Your task to perform on an android device: Empty the shopping cart on costco.com. Search for "macbook air" on costco.com, select the first entry, add it to the cart, then select checkout. Image 0: 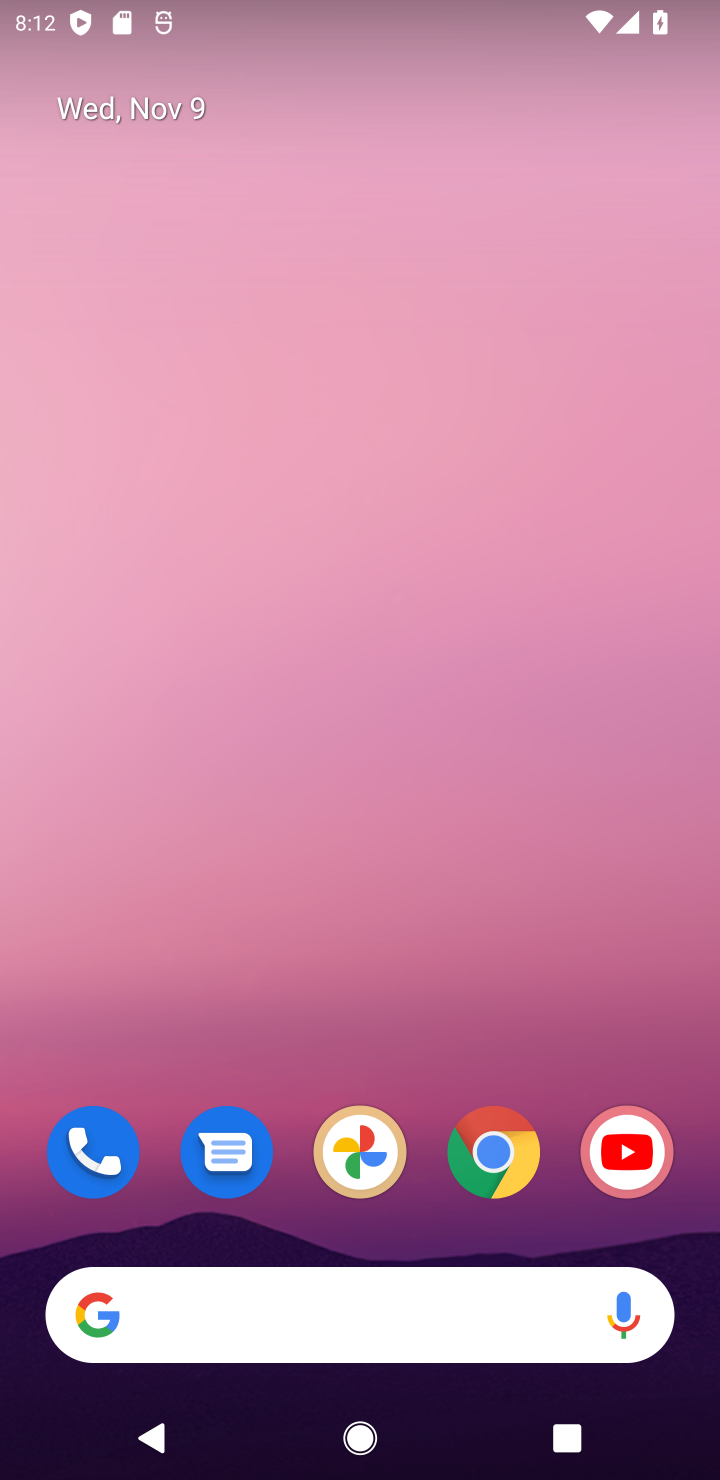
Step 0: click (501, 1137)
Your task to perform on an android device: Empty the shopping cart on costco.com. Search for "macbook air" on costco.com, select the first entry, add it to the cart, then select checkout. Image 1: 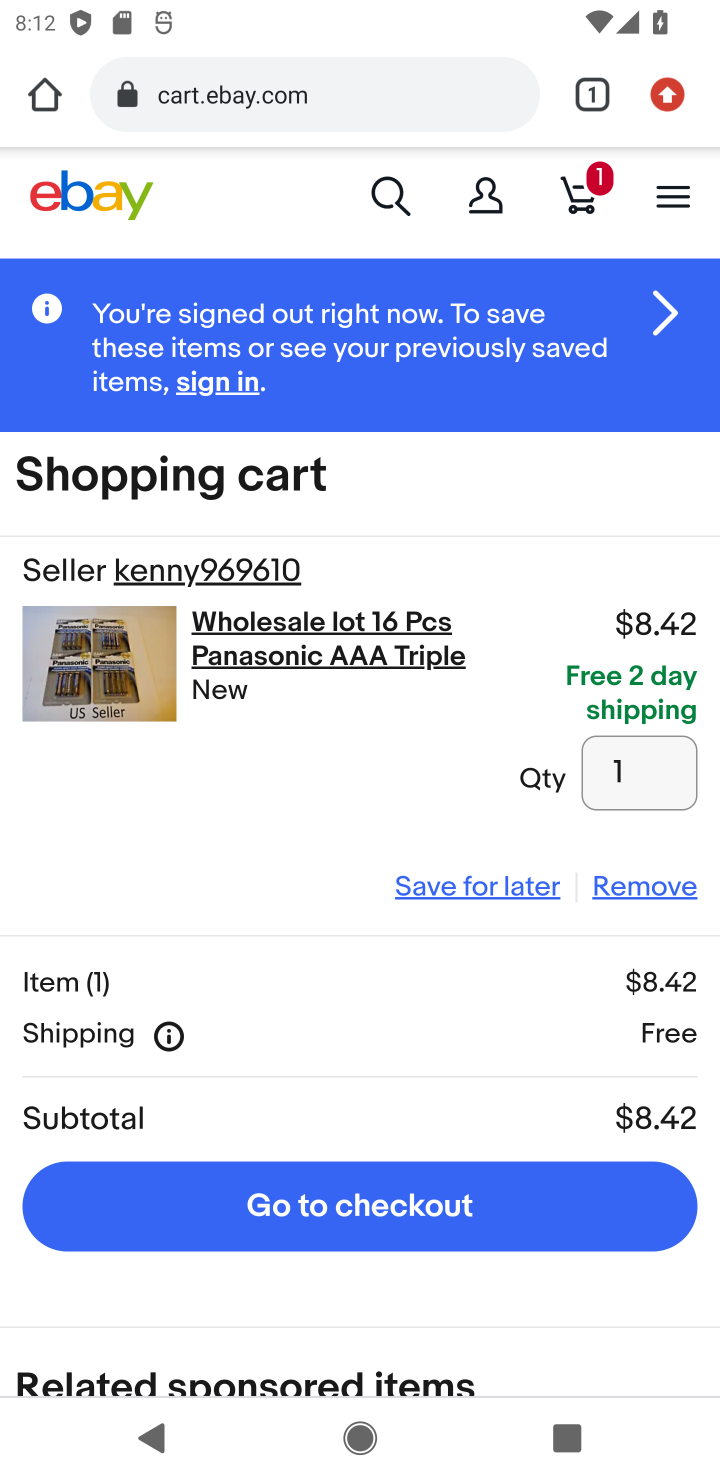
Step 1: click (239, 98)
Your task to perform on an android device: Empty the shopping cart on costco.com. Search for "macbook air" on costco.com, select the first entry, add it to the cart, then select checkout. Image 2: 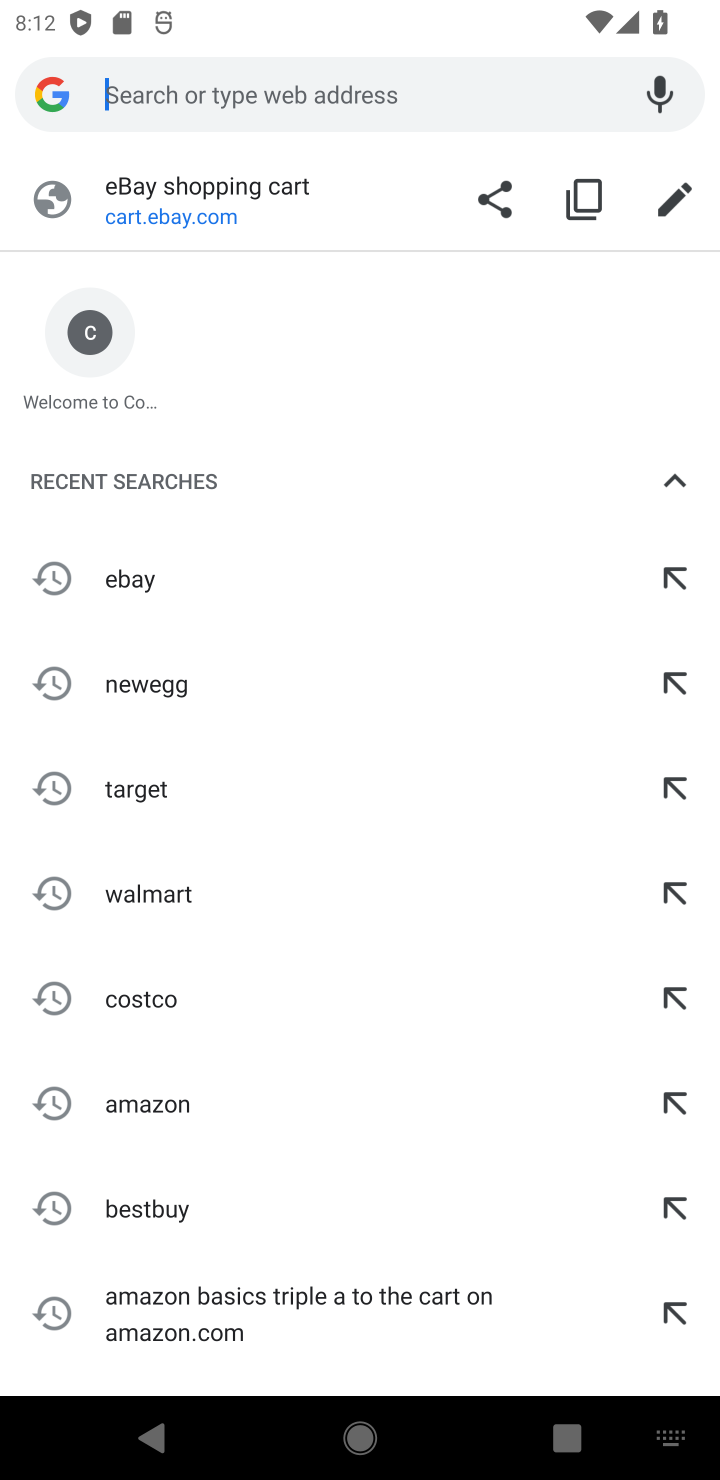
Step 2: click (150, 995)
Your task to perform on an android device: Empty the shopping cart on costco.com. Search for "macbook air" on costco.com, select the first entry, add it to the cart, then select checkout. Image 3: 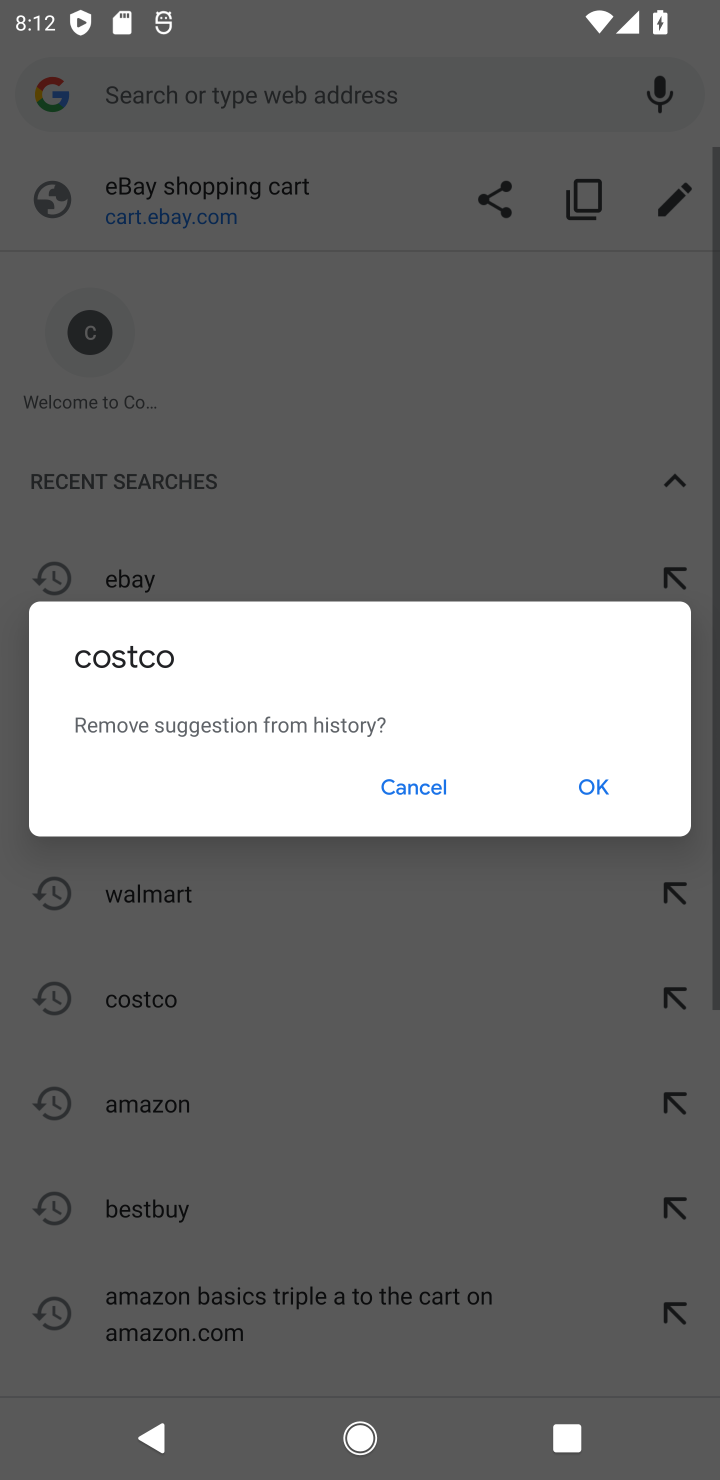
Step 3: click (419, 785)
Your task to perform on an android device: Empty the shopping cart on costco.com. Search for "macbook air" on costco.com, select the first entry, add it to the cart, then select checkout. Image 4: 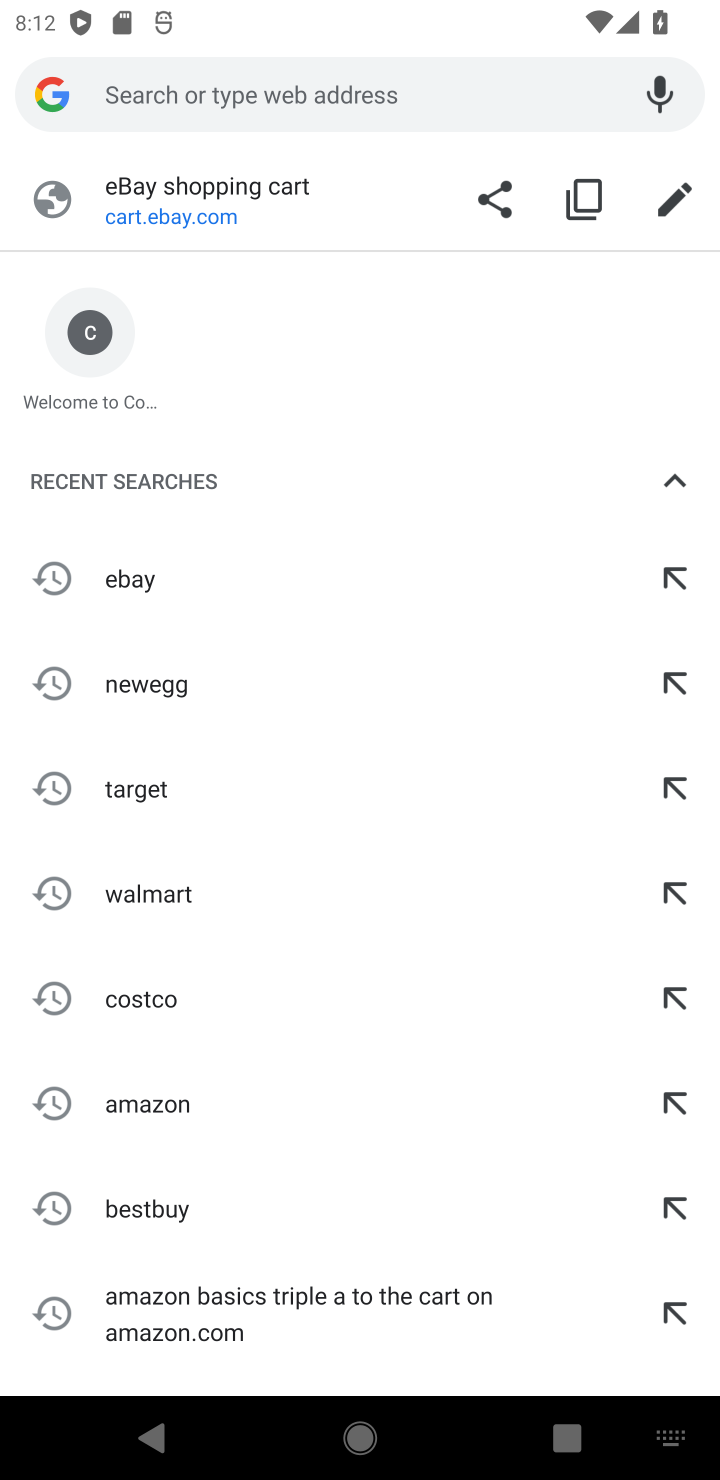
Step 4: click (111, 993)
Your task to perform on an android device: Empty the shopping cart on costco.com. Search for "macbook air" on costco.com, select the first entry, add it to the cart, then select checkout. Image 5: 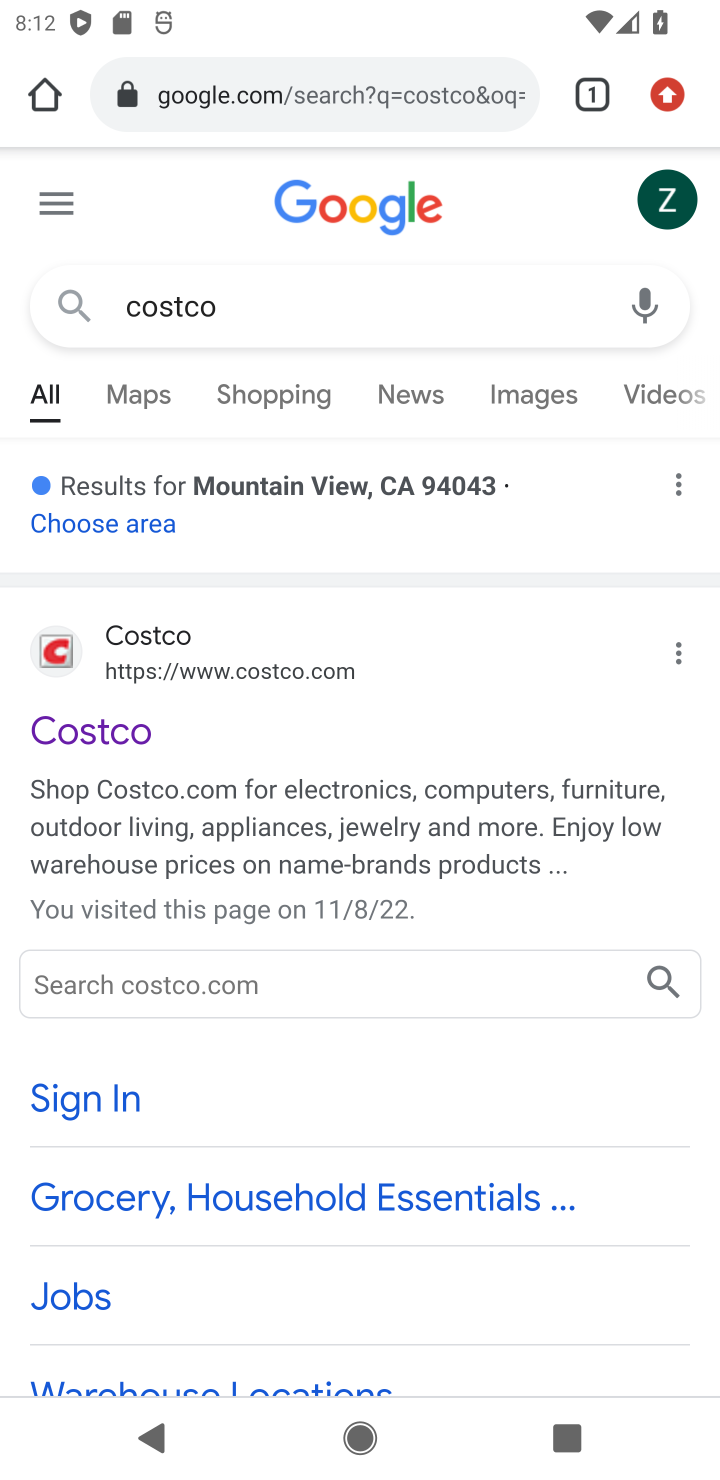
Step 5: click (113, 719)
Your task to perform on an android device: Empty the shopping cart on costco.com. Search for "macbook air" on costco.com, select the first entry, add it to the cart, then select checkout. Image 6: 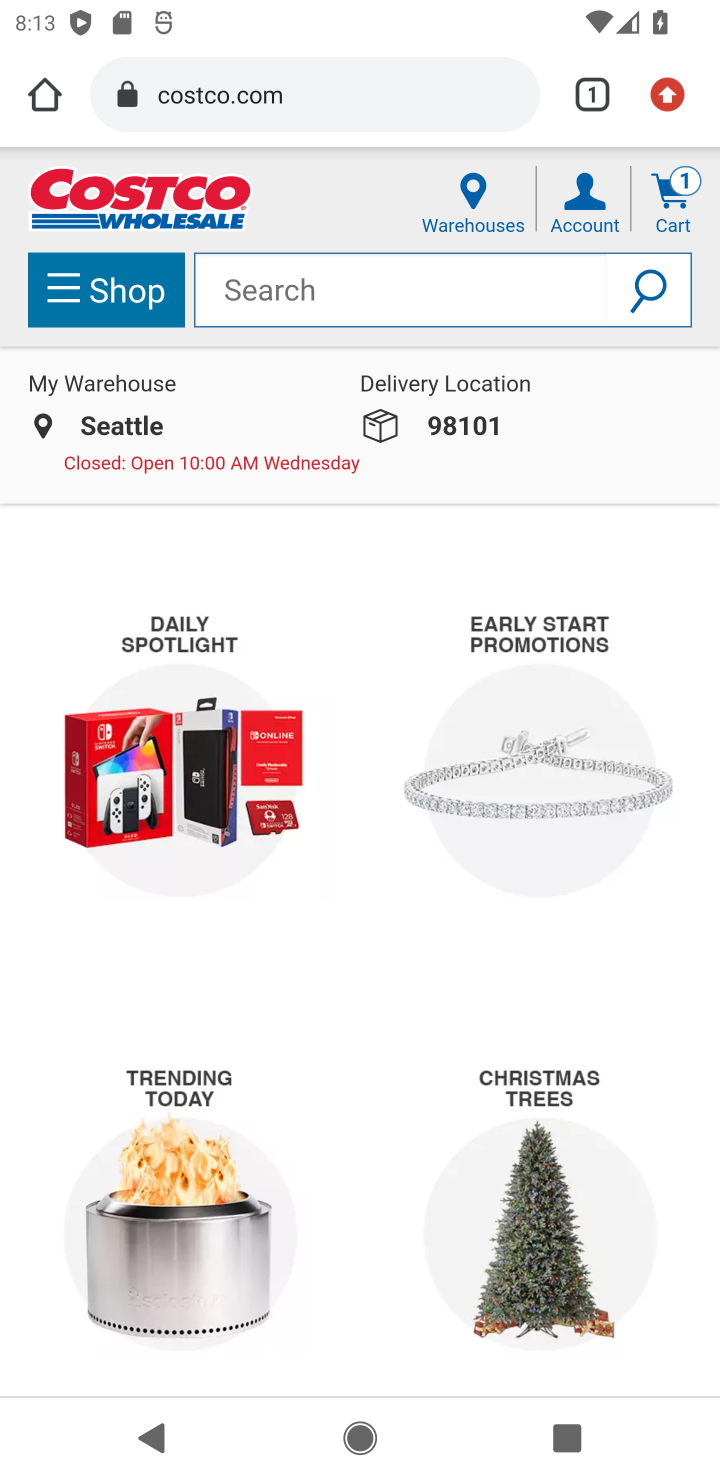
Step 6: click (389, 296)
Your task to perform on an android device: Empty the shopping cart on costco.com. Search for "macbook air" on costco.com, select the first entry, add it to the cart, then select checkout. Image 7: 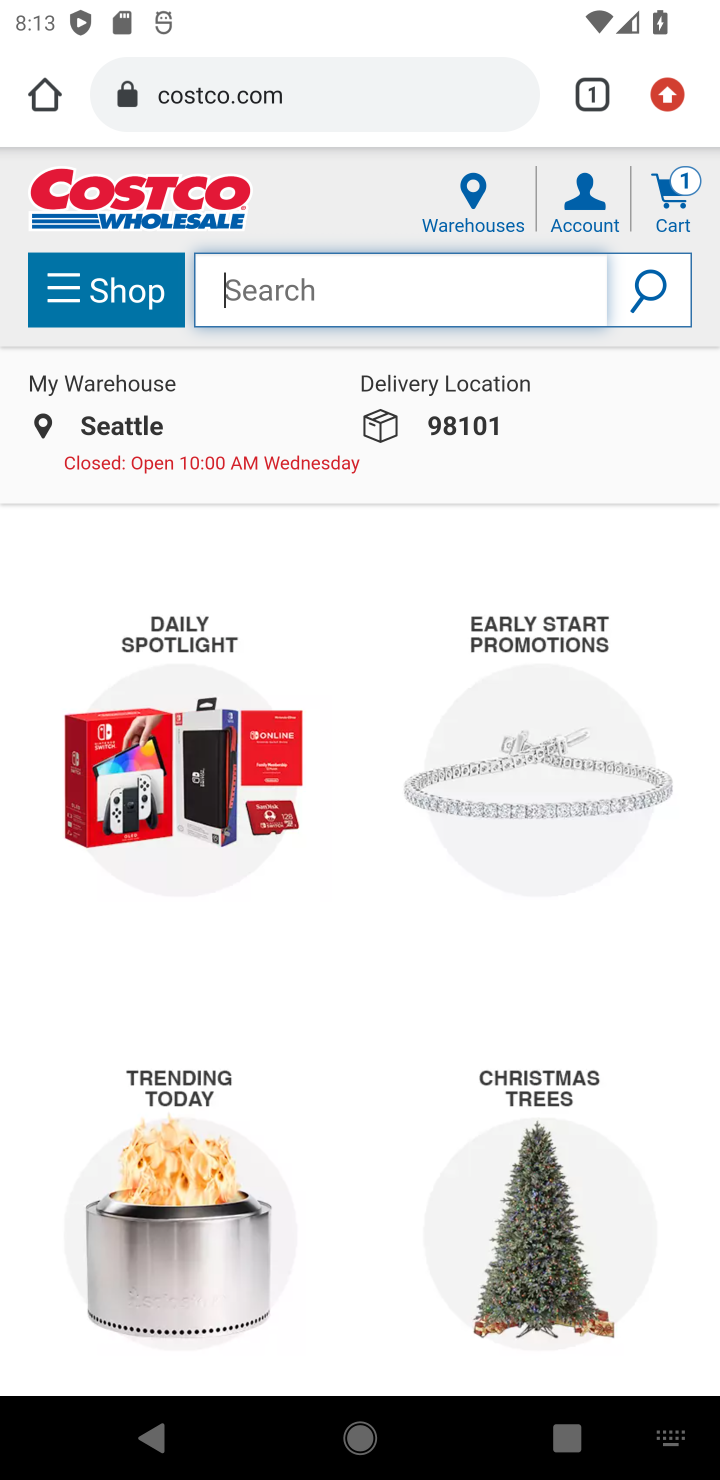
Step 7: type "macbook air"
Your task to perform on an android device: Empty the shopping cart on costco.com. Search for "macbook air" on costco.com, select the first entry, add it to the cart, then select checkout. Image 8: 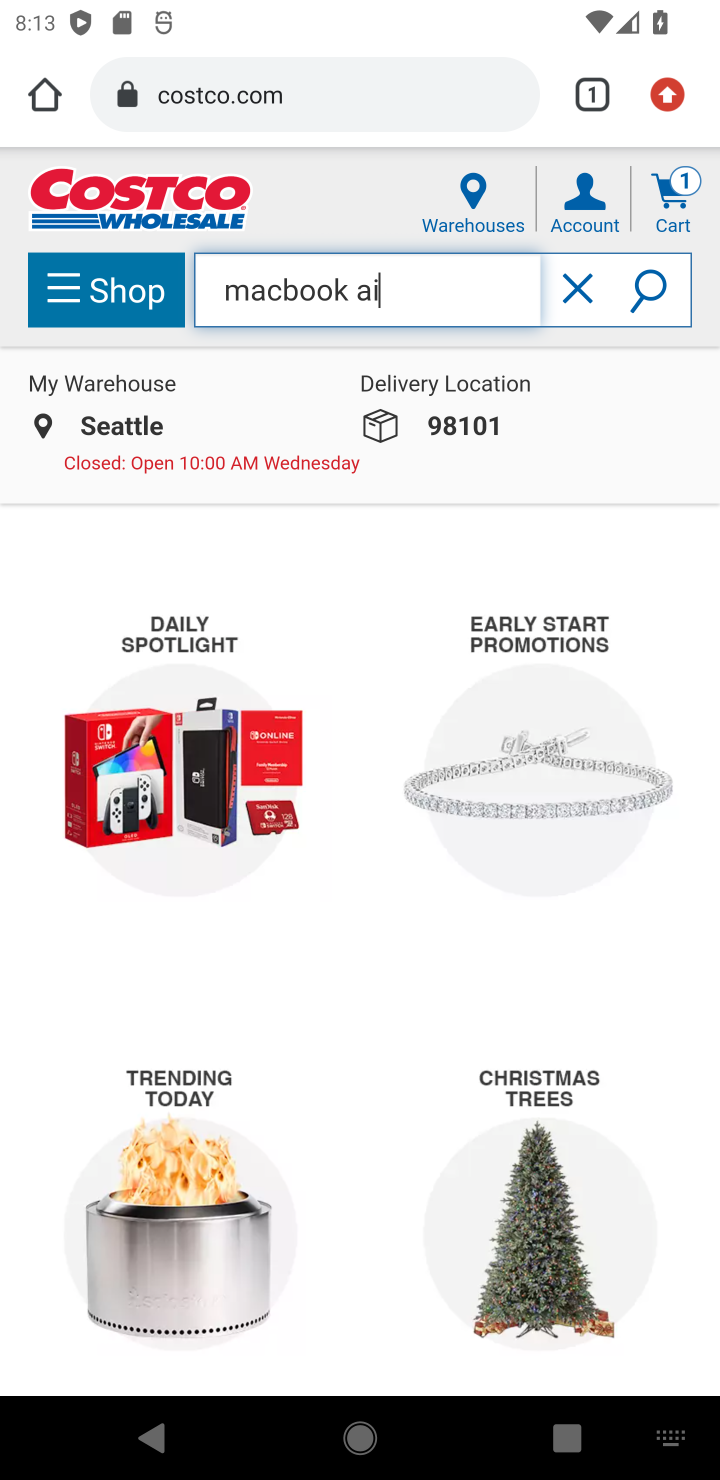
Step 8: press enter
Your task to perform on an android device: Empty the shopping cart on costco.com. Search for "macbook air" on costco.com, select the first entry, add it to the cart, then select checkout. Image 9: 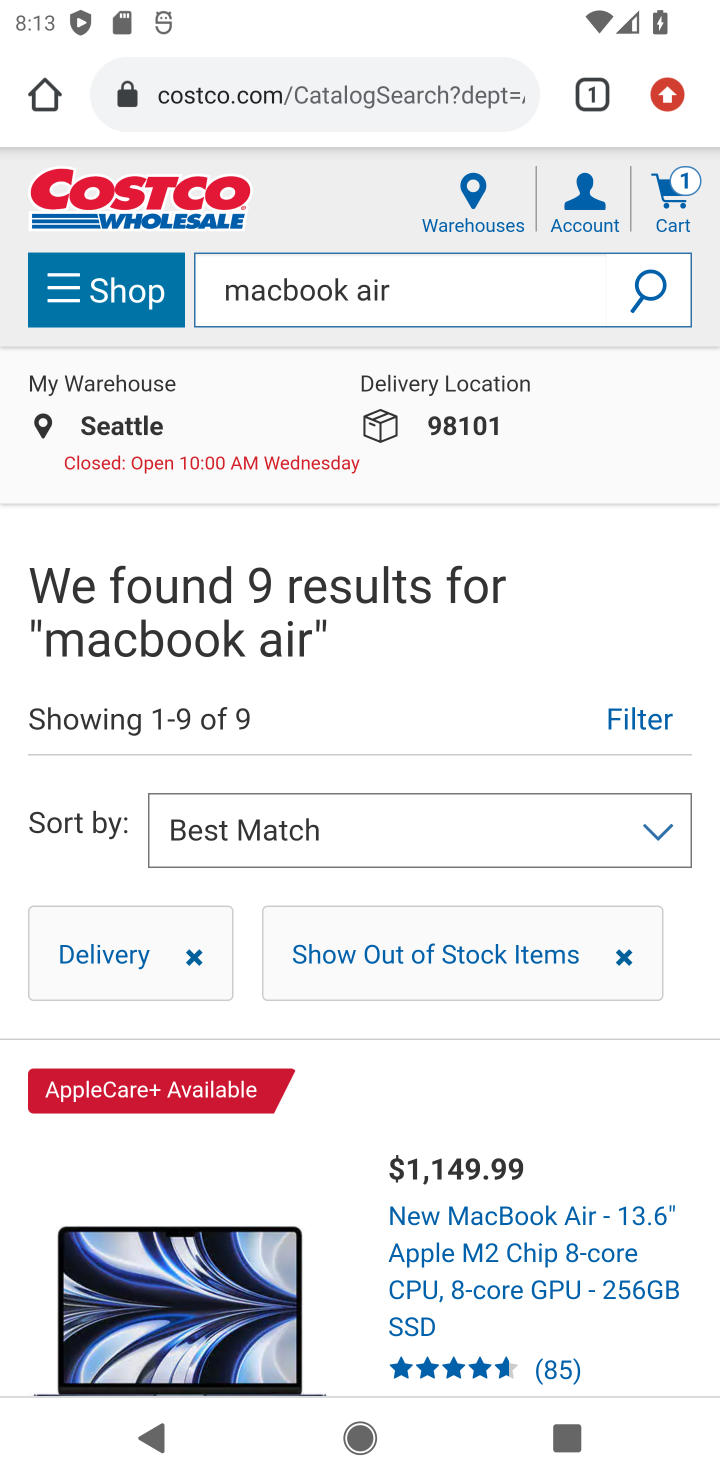
Step 9: drag from (296, 1325) to (509, 664)
Your task to perform on an android device: Empty the shopping cart on costco.com. Search for "macbook air" on costco.com, select the first entry, add it to the cart, then select checkout. Image 10: 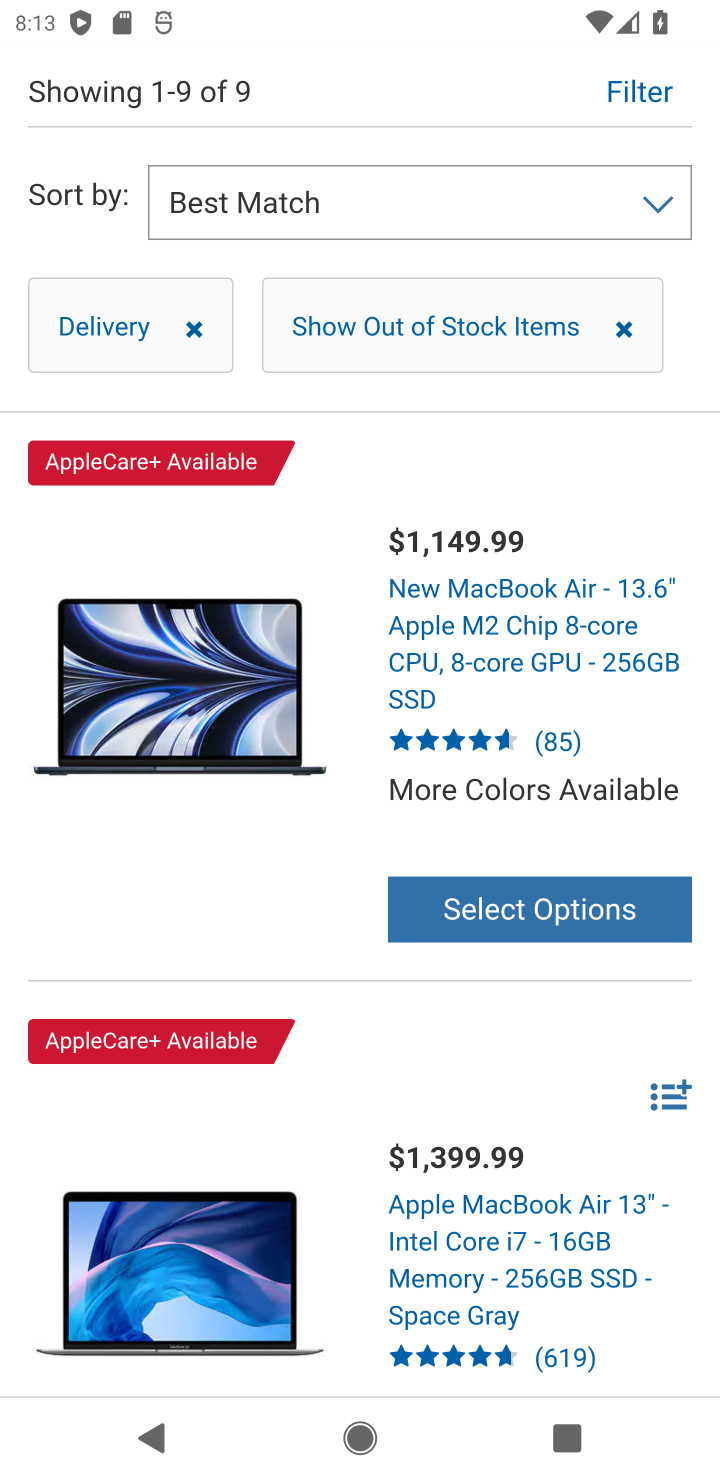
Step 10: click (536, 652)
Your task to perform on an android device: Empty the shopping cart on costco.com. Search for "macbook air" on costco.com, select the first entry, add it to the cart, then select checkout. Image 11: 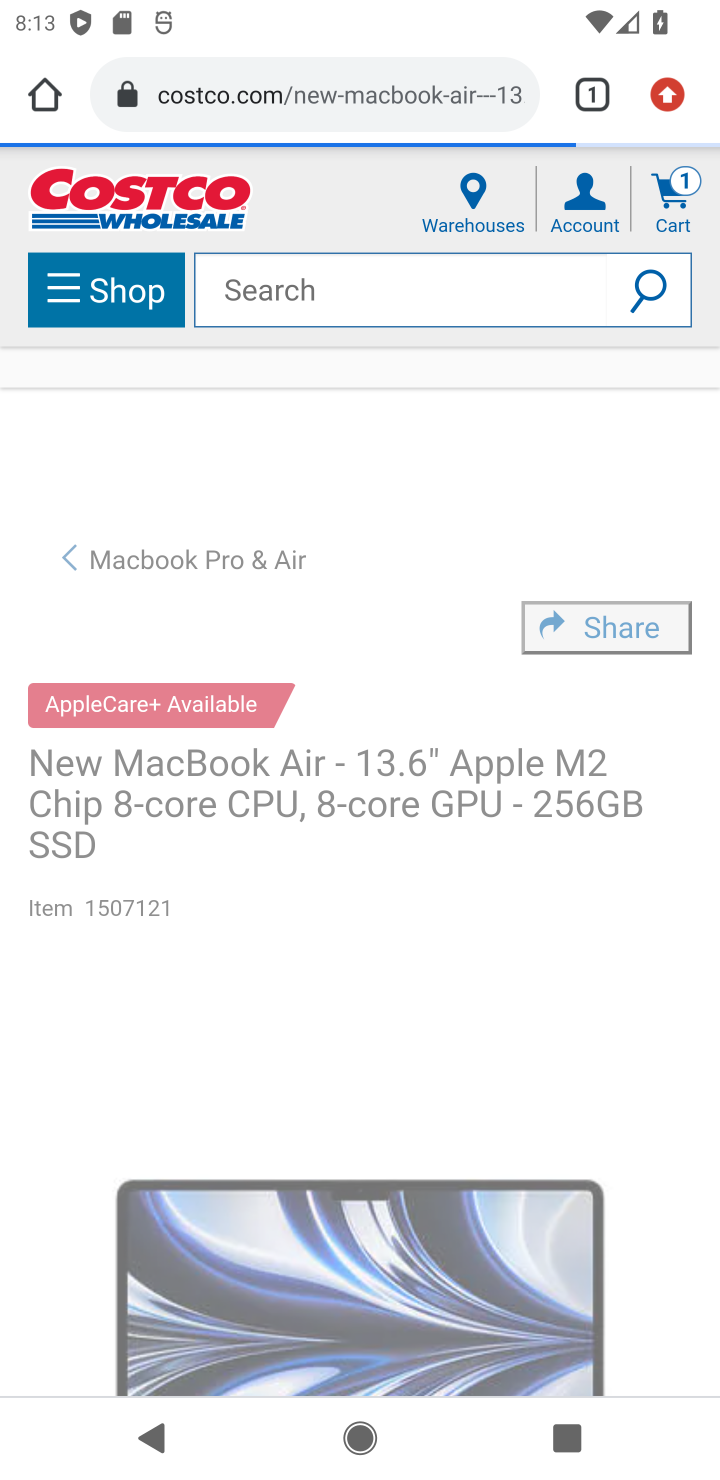
Step 11: drag from (60, 1347) to (464, 530)
Your task to perform on an android device: Empty the shopping cart on costco.com. Search for "macbook air" on costco.com, select the first entry, add it to the cart, then select checkout. Image 12: 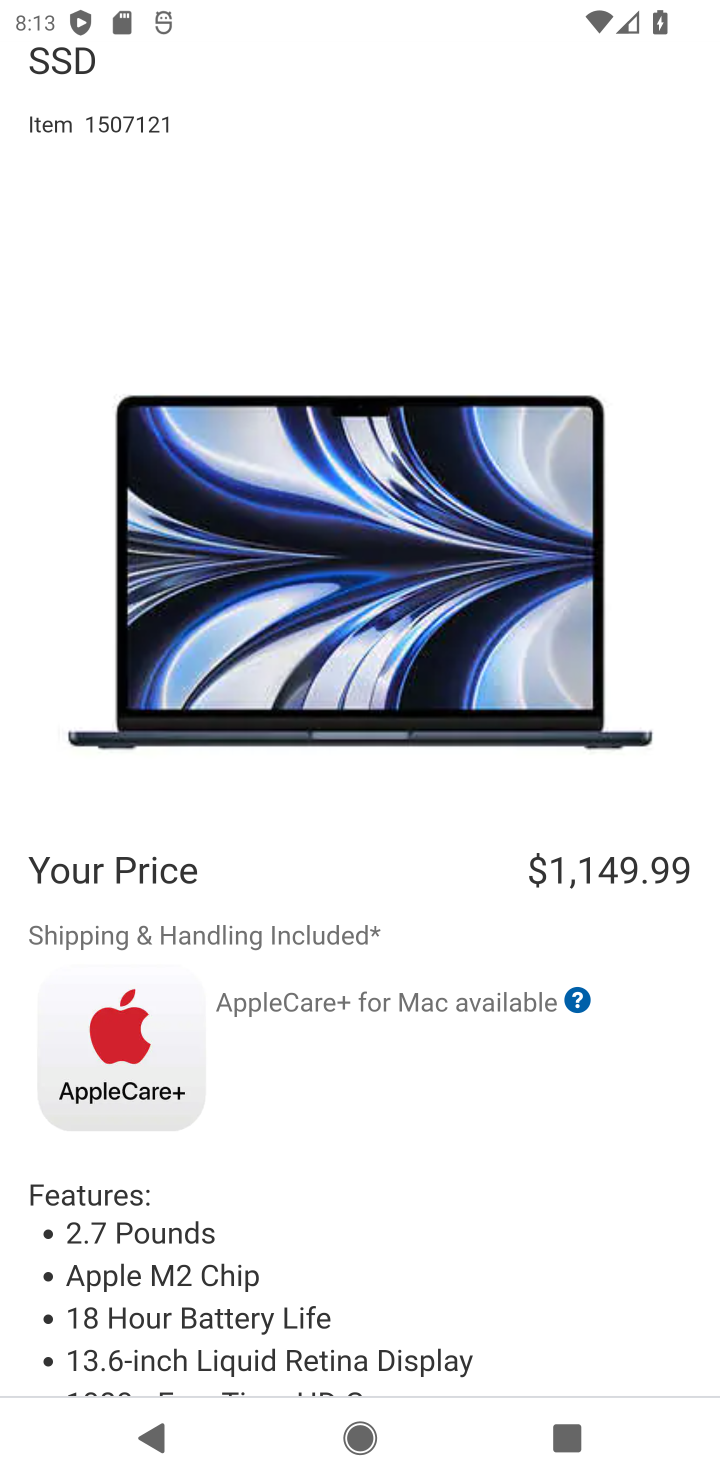
Step 12: drag from (467, 1055) to (434, 569)
Your task to perform on an android device: Empty the shopping cart on costco.com. Search for "macbook air" on costco.com, select the first entry, add it to the cart, then select checkout. Image 13: 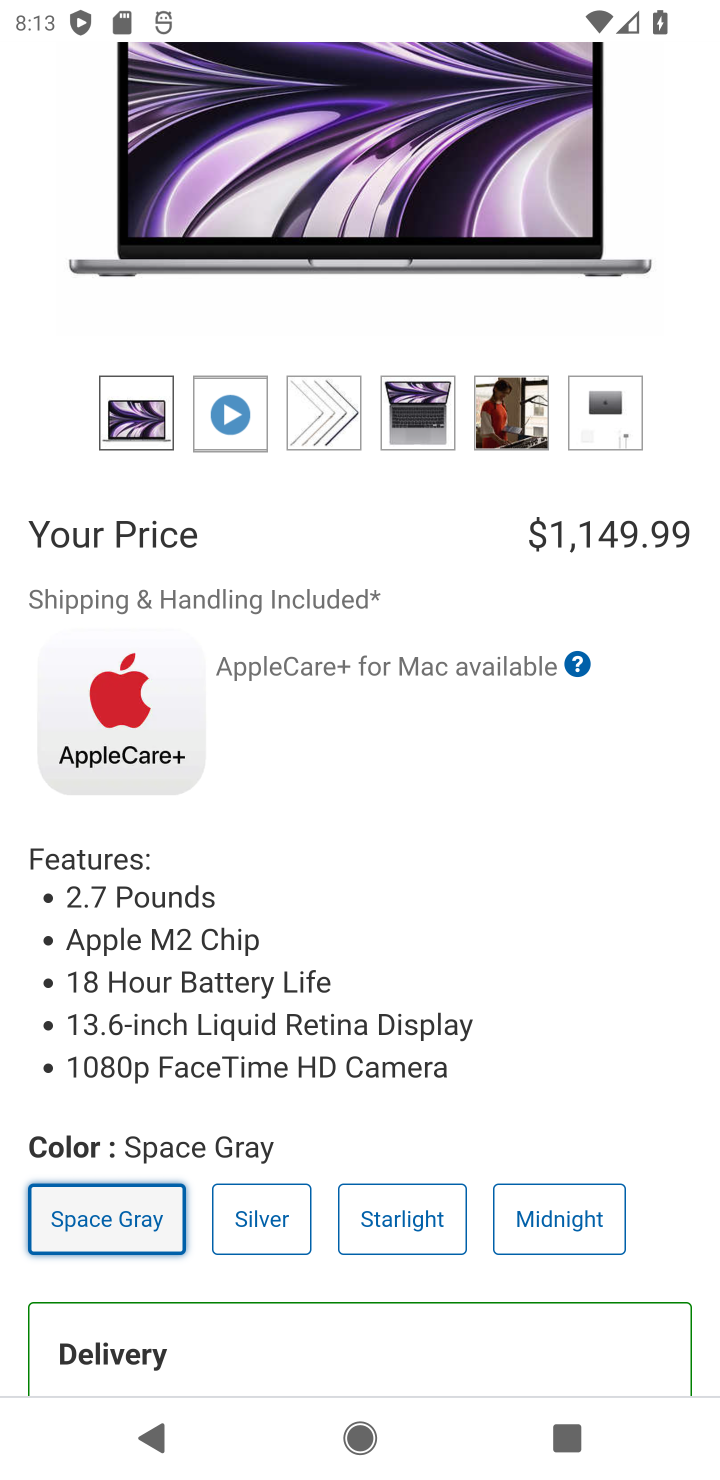
Step 13: drag from (326, 962) to (363, 88)
Your task to perform on an android device: Empty the shopping cart on costco.com. Search for "macbook air" on costco.com, select the first entry, add it to the cart, then select checkout. Image 14: 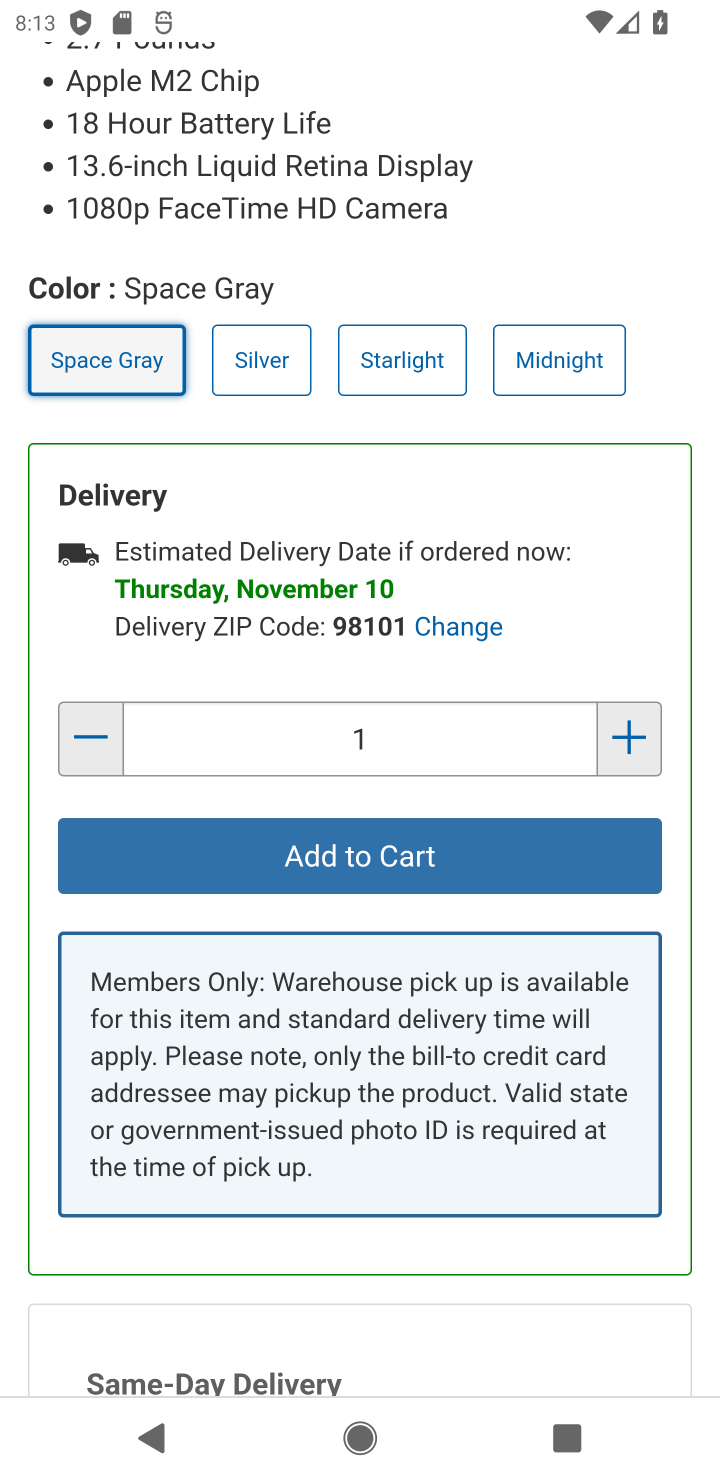
Step 14: click (370, 869)
Your task to perform on an android device: Empty the shopping cart on costco.com. Search for "macbook air" on costco.com, select the first entry, add it to the cart, then select checkout. Image 15: 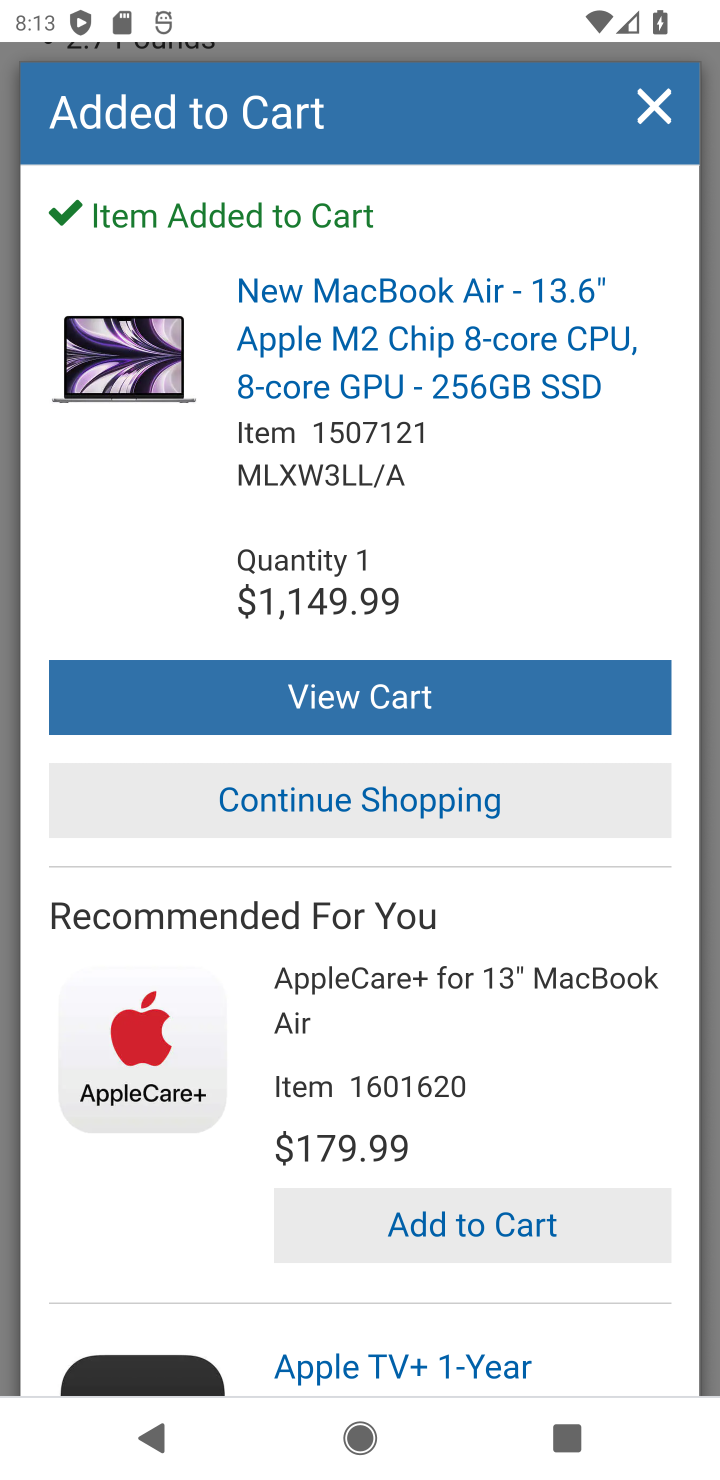
Step 15: click (400, 695)
Your task to perform on an android device: Empty the shopping cart on costco.com. Search for "macbook air" on costco.com, select the first entry, add it to the cart, then select checkout. Image 16: 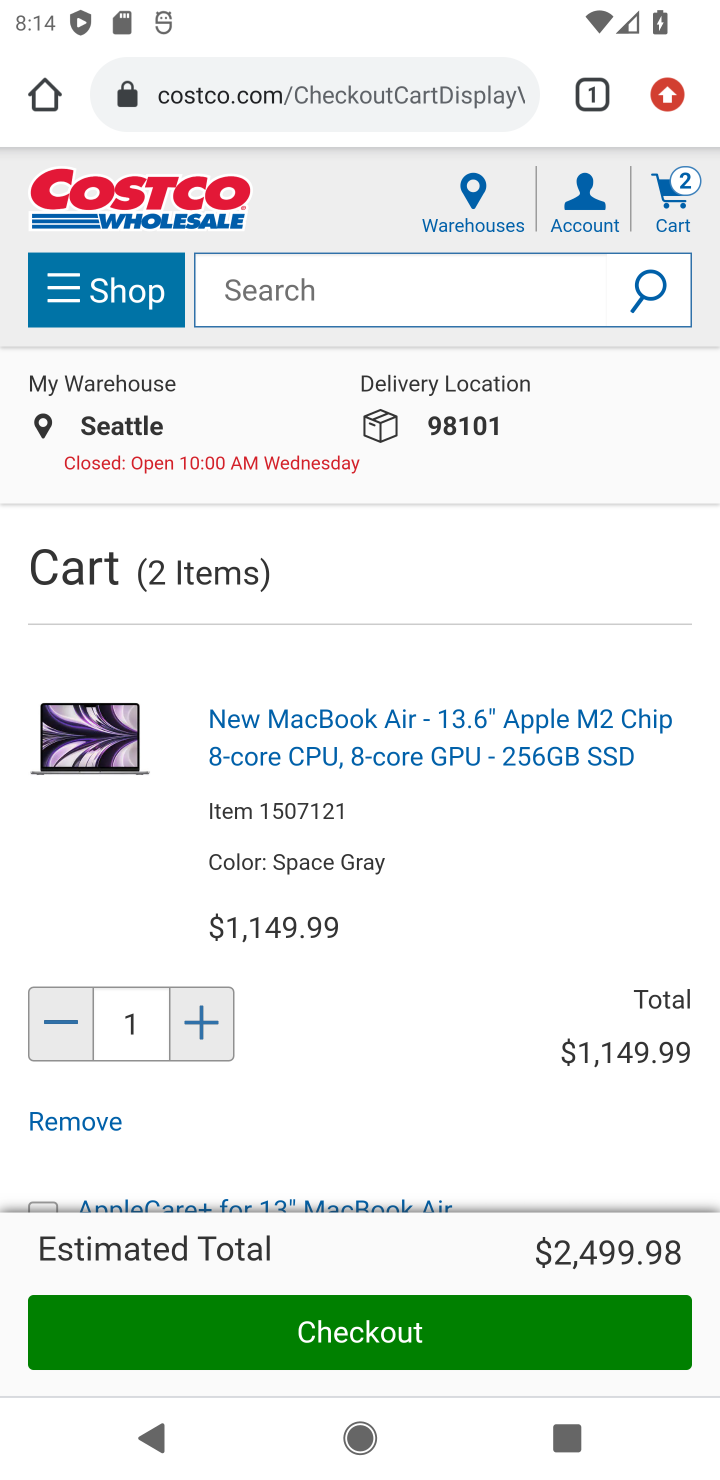
Step 16: drag from (334, 1105) to (465, 427)
Your task to perform on an android device: Empty the shopping cart on costco.com. Search for "macbook air" on costco.com, select the first entry, add it to the cart, then select checkout. Image 17: 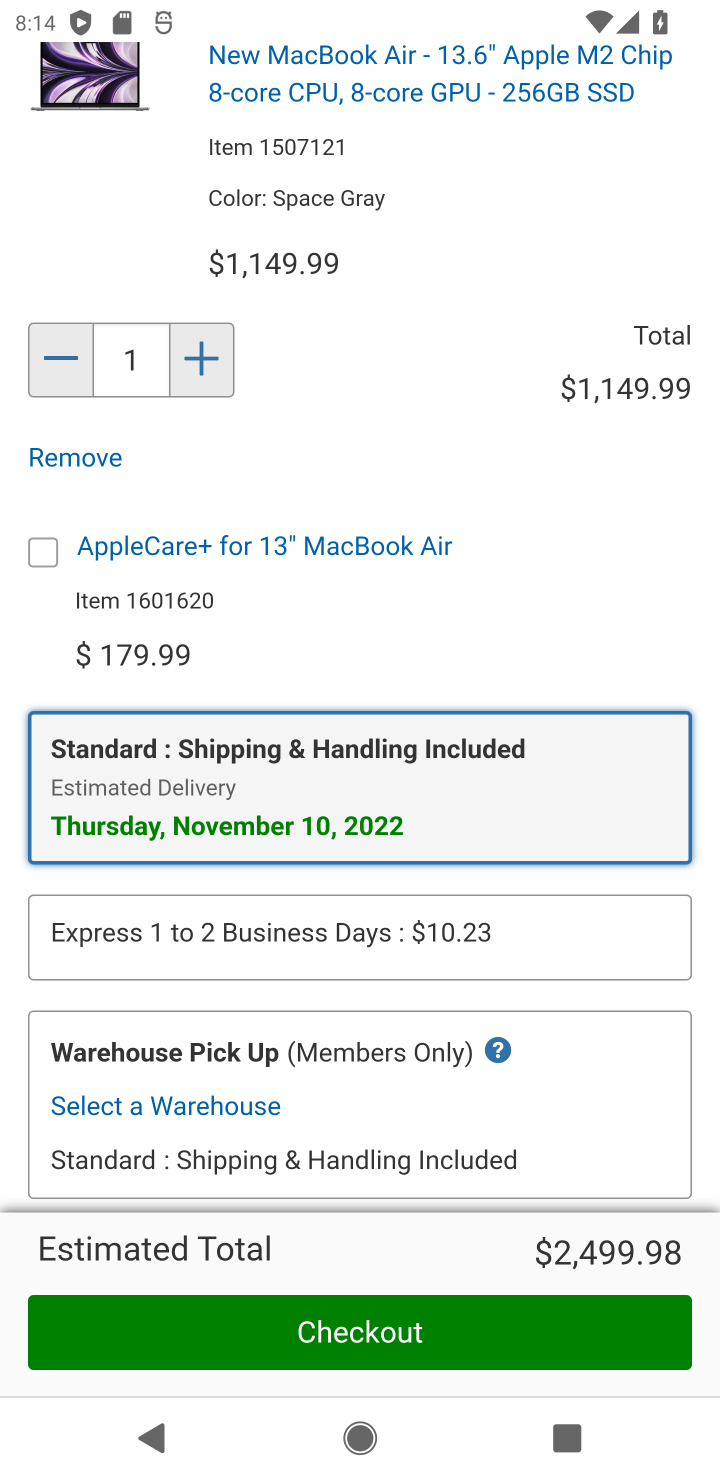
Step 17: drag from (366, 1142) to (597, 393)
Your task to perform on an android device: Empty the shopping cart on costco.com. Search for "macbook air" on costco.com, select the first entry, add it to the cart, then select checkout. Image 18: 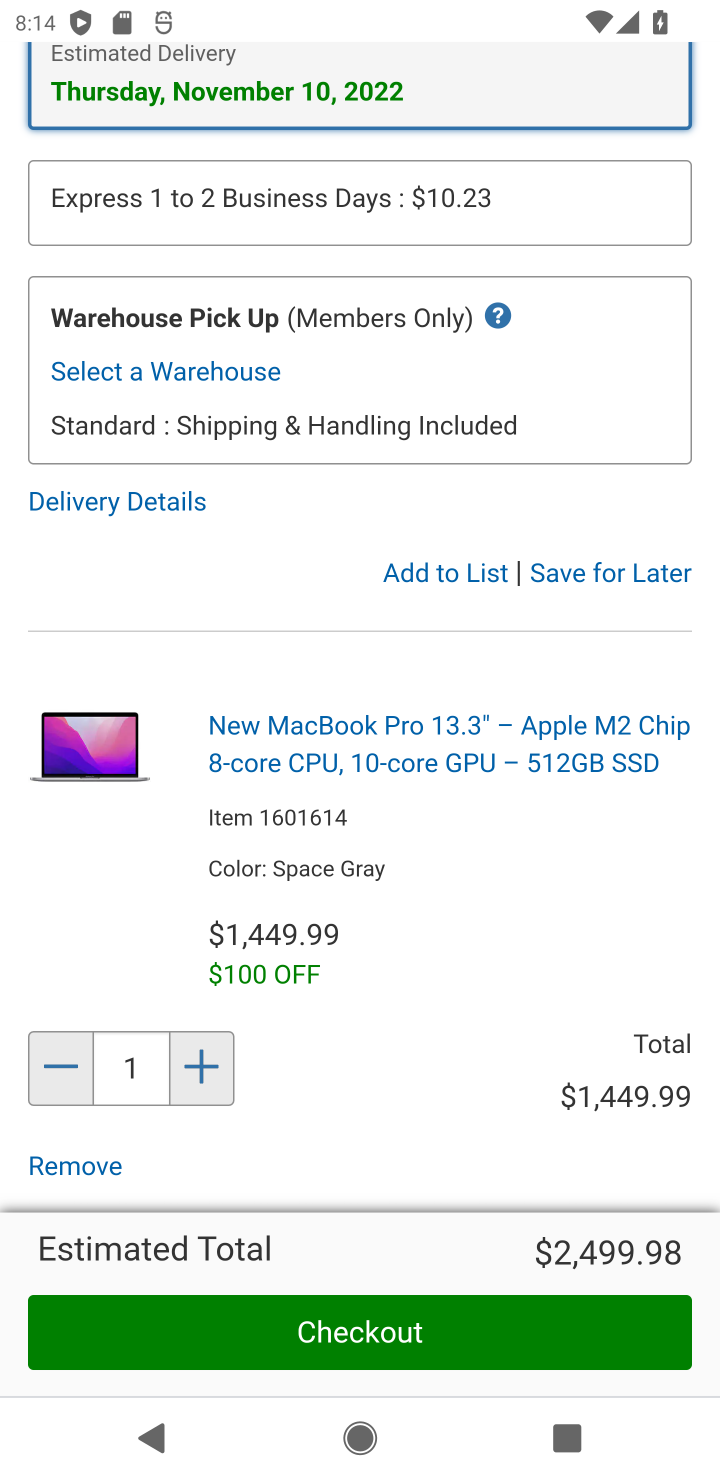
Step 18: click (86, 1169)
Your task to perform on an android device: Empty the shopping cart on costco.com. Search for "macbook air" on costco.com, select the first entry, add it to the cart, then select checkout. Image 19: 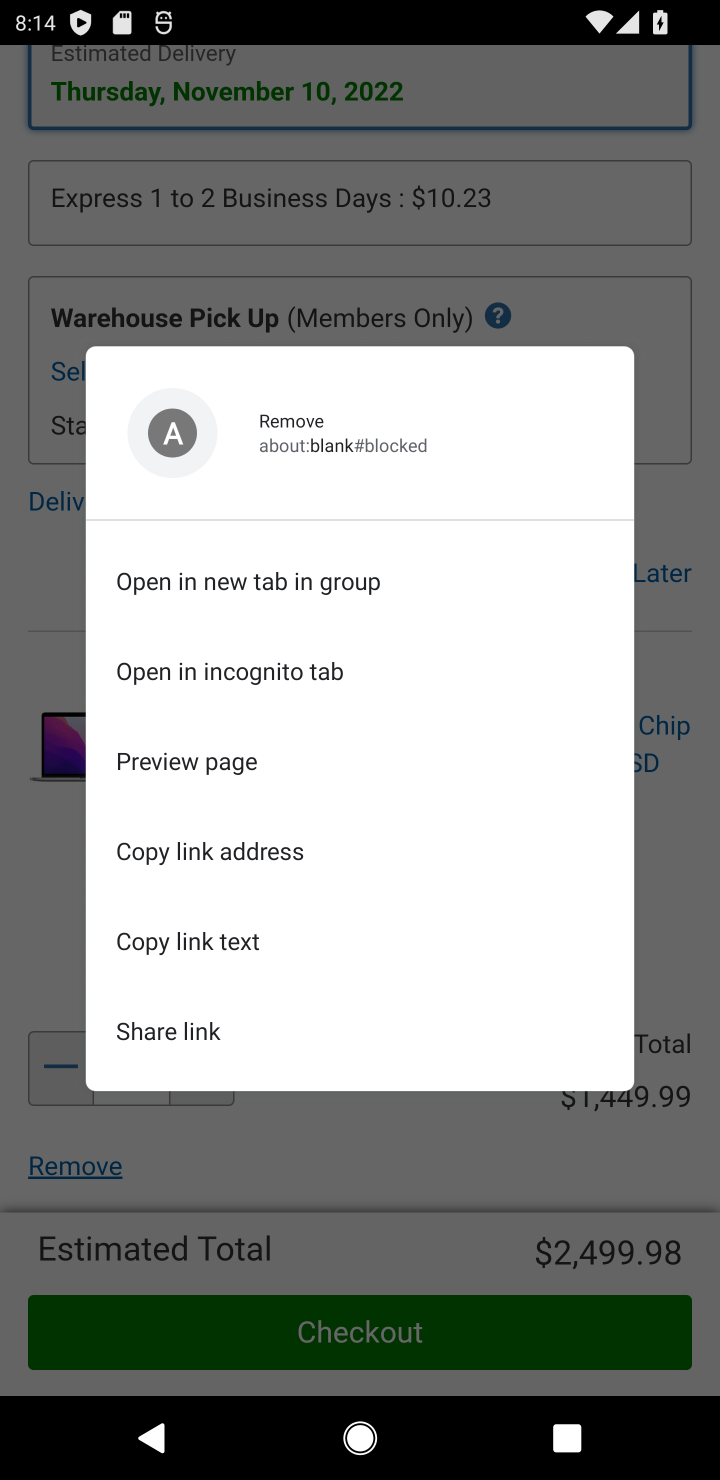
Step 19: click (68, 1171)
Your task to perform on an android device: Empty the shopping cart on costco.com. Search for "macbook air" on costco.com, select the first entry, add it to the cart, then select checkout. Image 20: 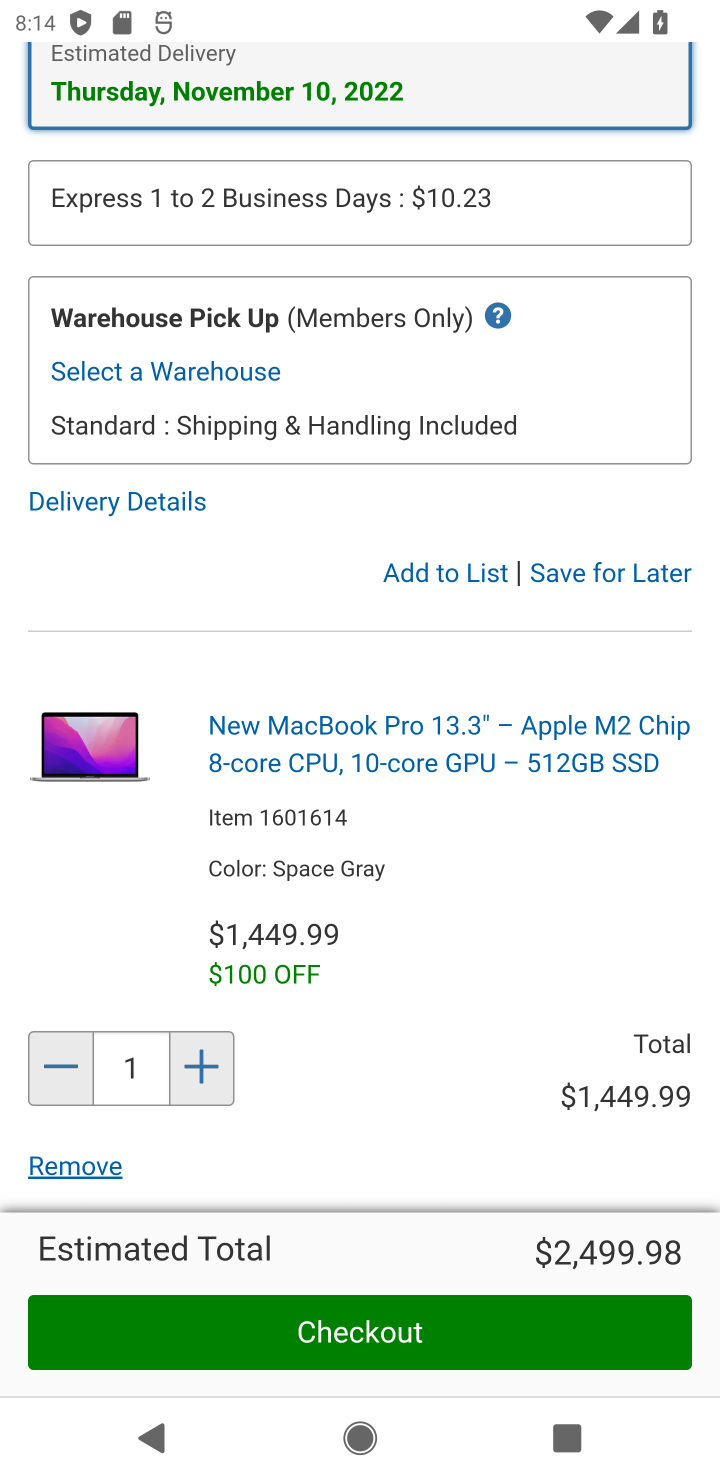
Step 20: click (70, 1168)
Your task to perform on an android device: Empty the shopping cart on costco.com. Search for "macbook air" on costco.com, select the first entry, add it to the cart, then select checkout. Image 21: 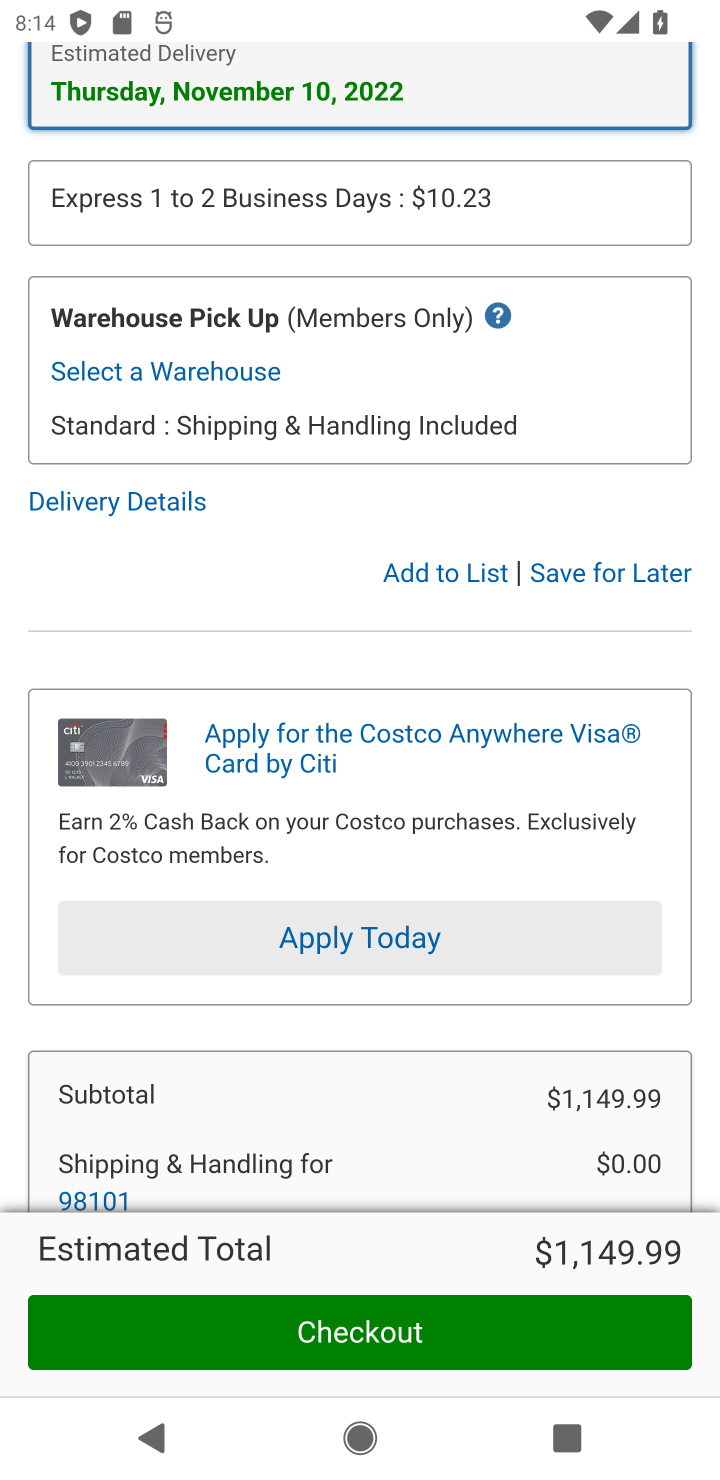
Step 21: drag from (495, 566) to (415, 1150)
Your task to perform on an android device: Empty the shopping cart on costco.com. Search for "macbook air" on costco.com, select the first entry, add it to the cart, then select checkout. Image 22: 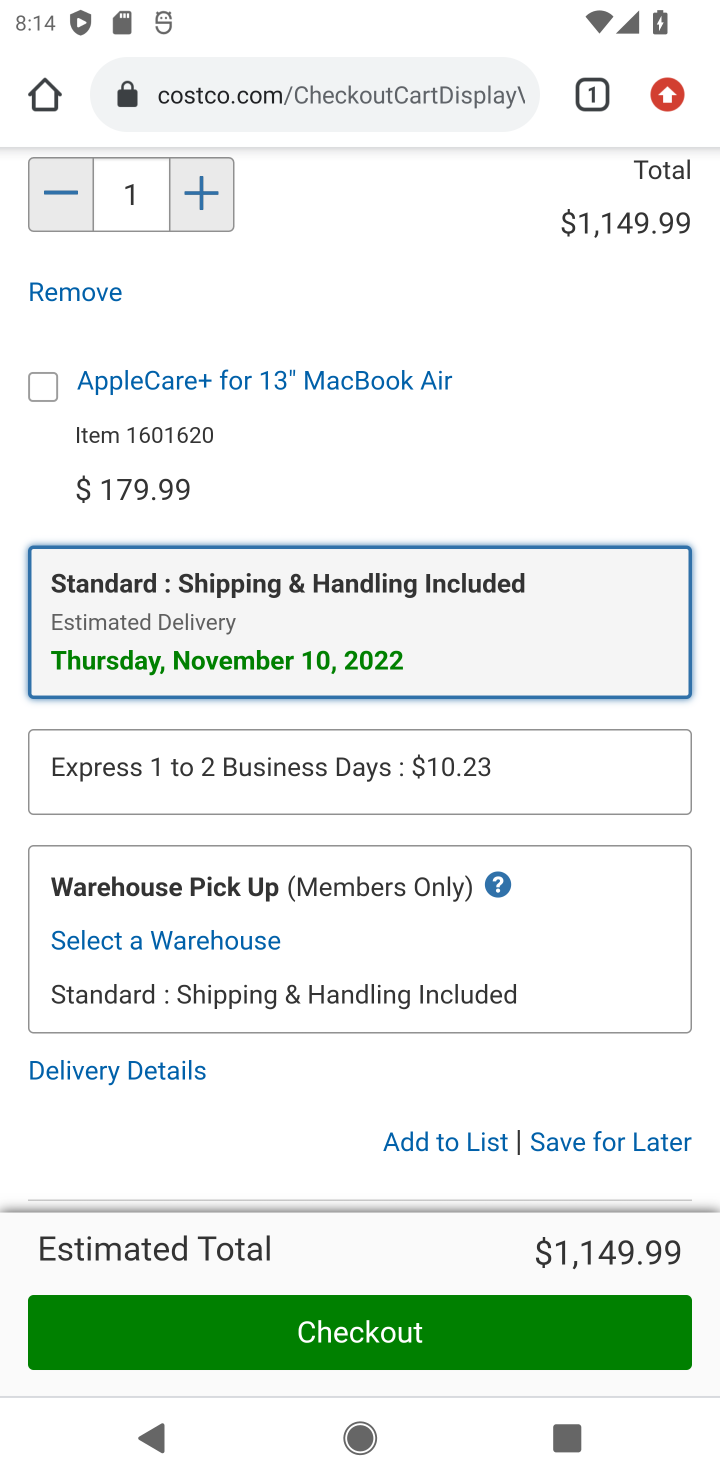
Step 22: drag from (514, 355) to (513, 1007)
Your task to perform on an android device: Empty the shopping cart on costco.com. Search for "macbook air" on costco.com, select the first entry, add it to the cart, then select checkout. Image 23: 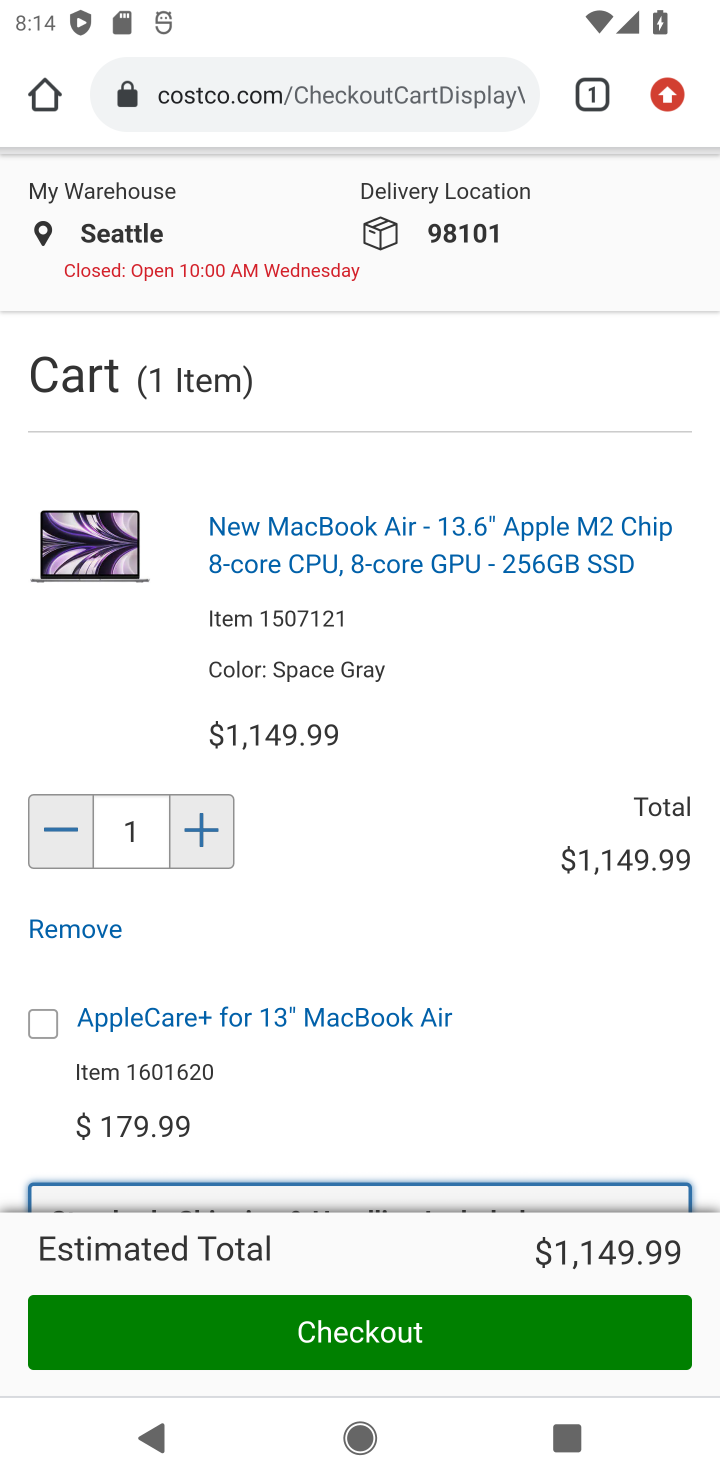
Step 23: click (380, 1343)
Your task to perform on an android device: Empty the shopping cart on costco.com. Search for "macbook air" on costco.com, select the first entry, add it to the cart, then select checkout. Image 24: 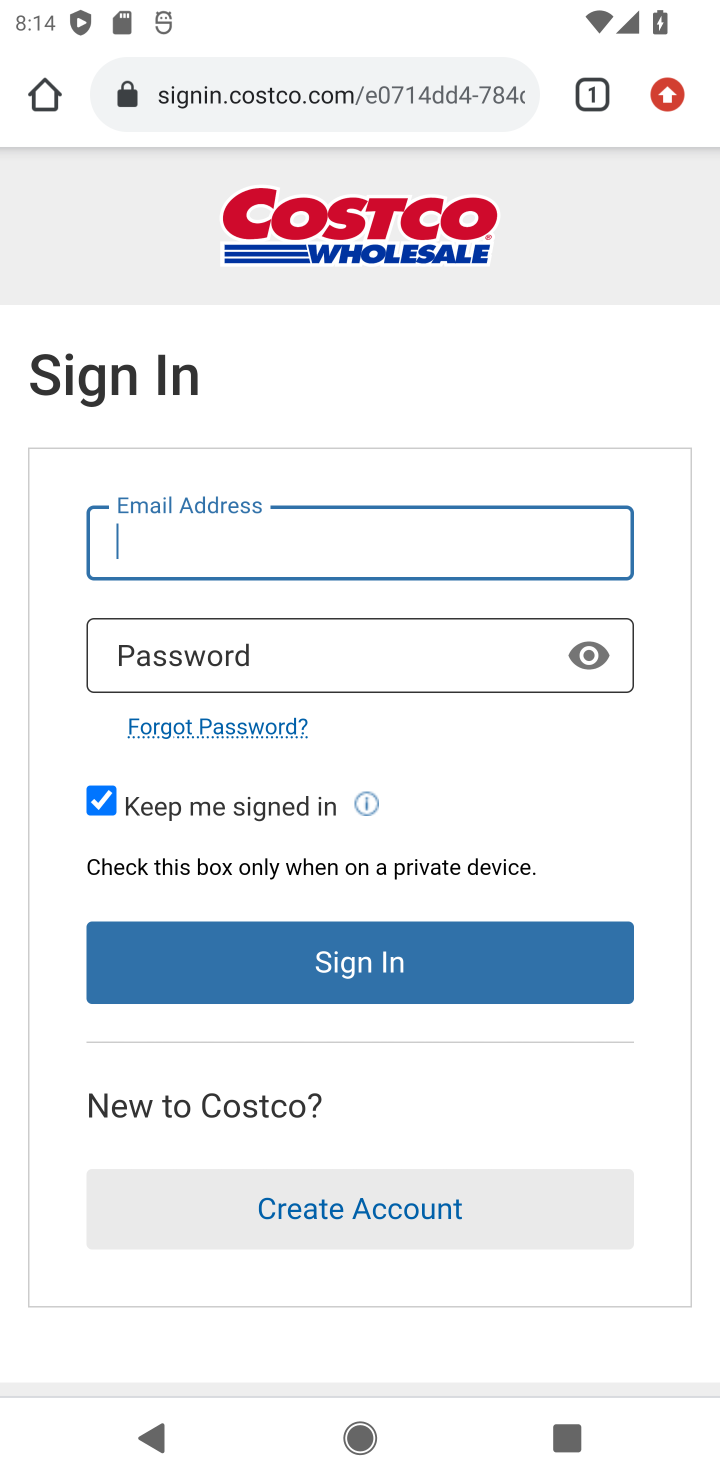
Step 24: task complete